Your task to perform on an android device: turn off javascript in the chrome app Image 0: 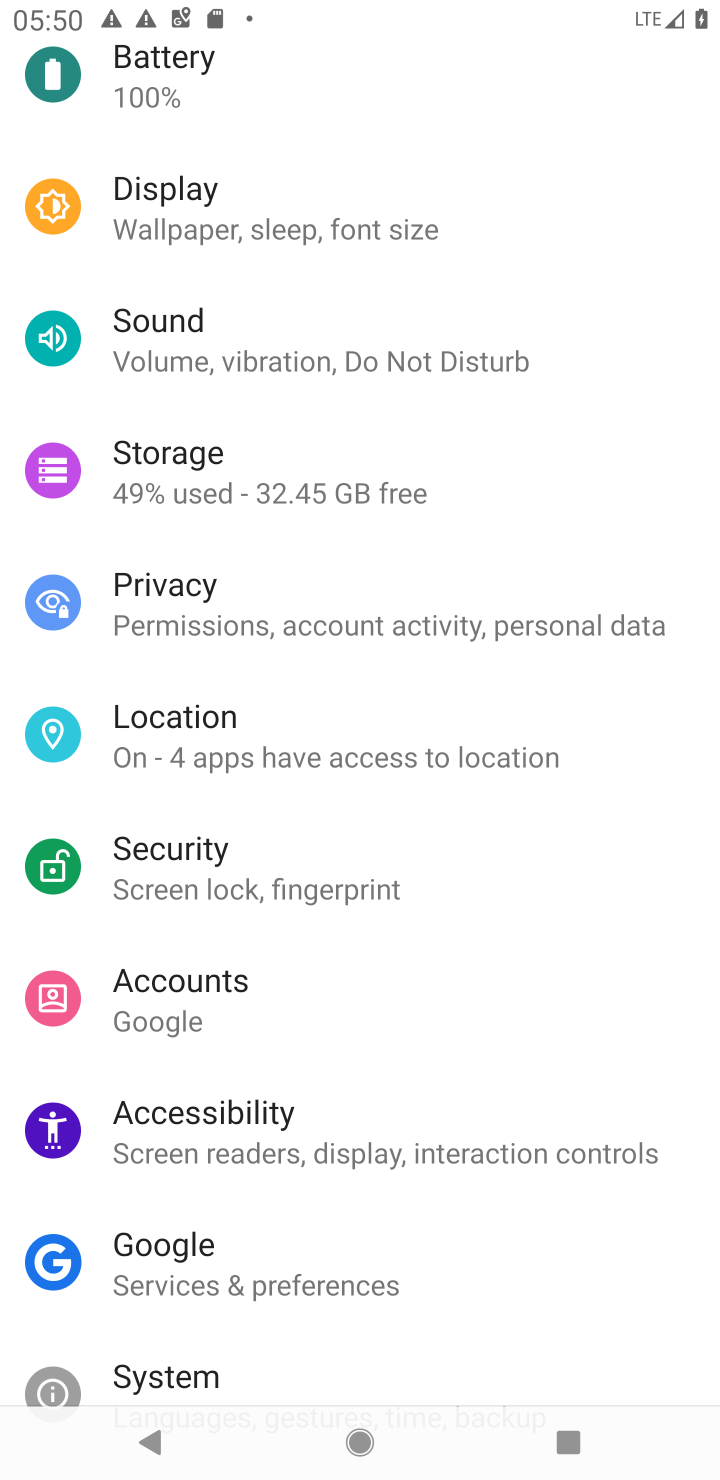
Step 0: press home button
Your task to perform on an android device: turn off javascript in the chrome app Image 1: 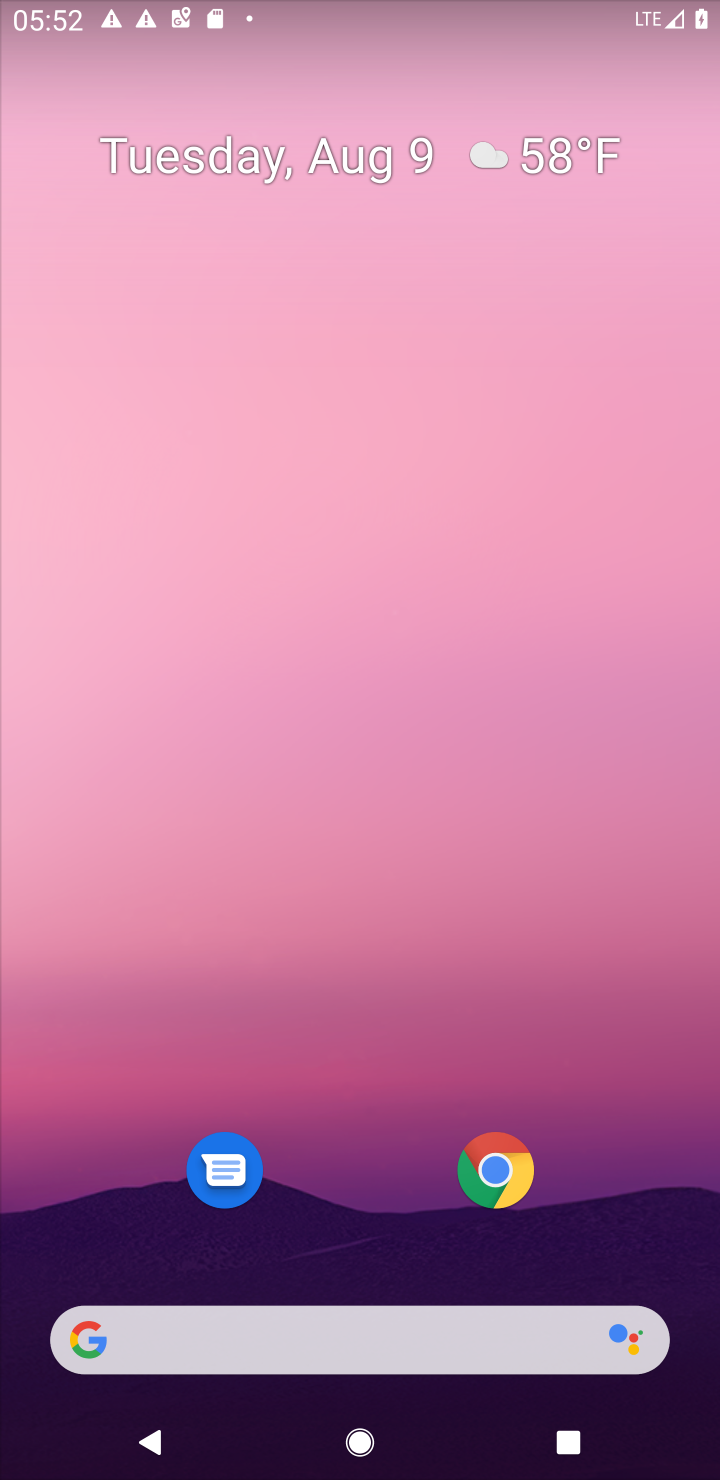
Step 1: click (490, 1172)
Your task to perform on an android device: turn off javascript in the chrome app Image 2: 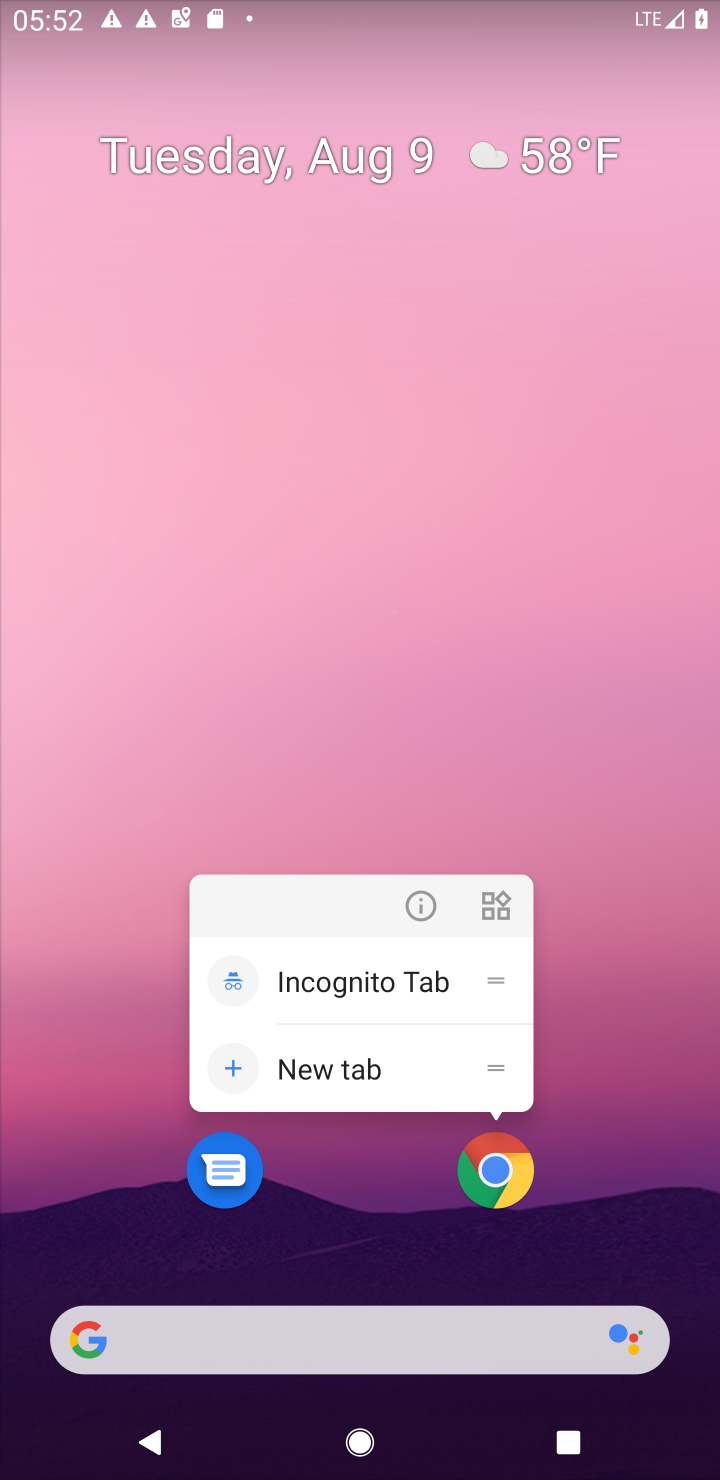
Step 2: click (506, 1193)
Your task to perform on an android device: turn off javascript in the chrome app Image 3: 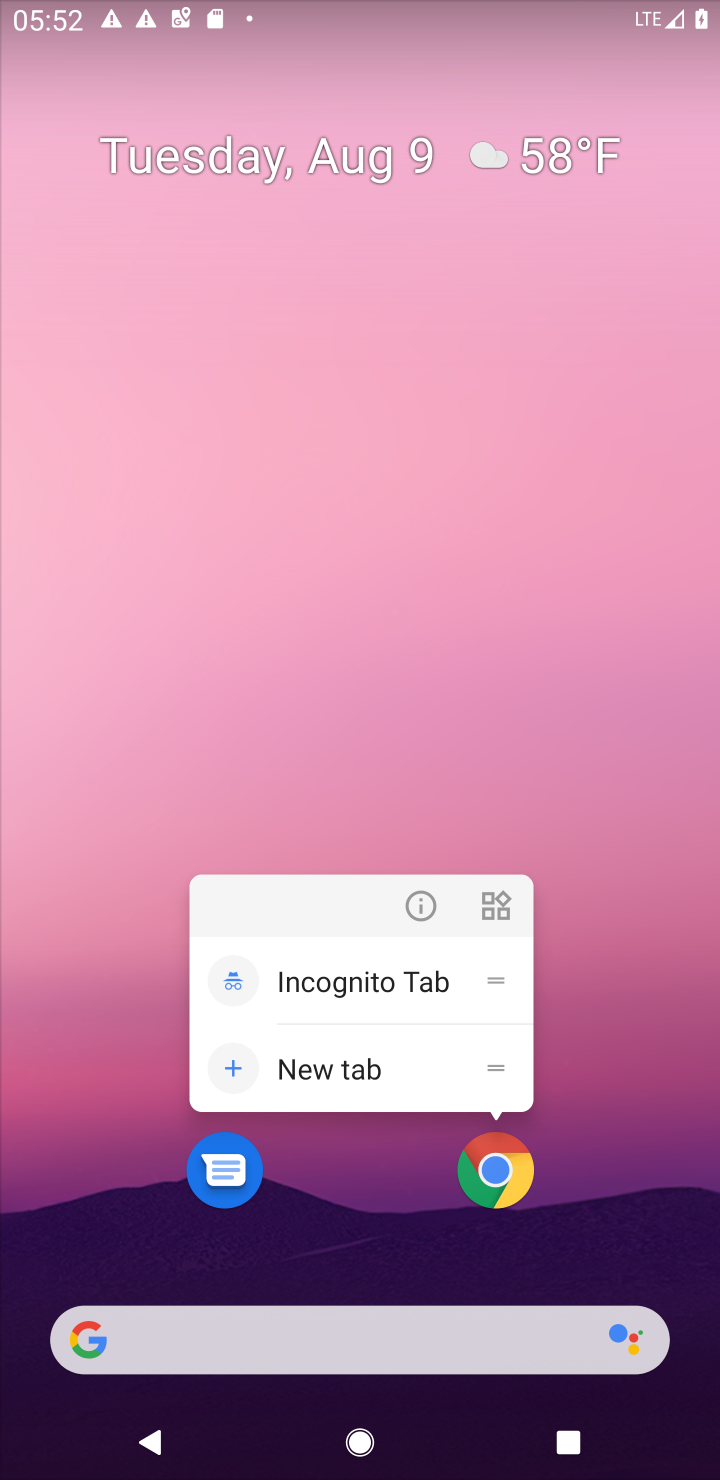
Step 3: click (506, 1193)
Your task to perform on an android device: turn off javascript in the chrome app Image 4: 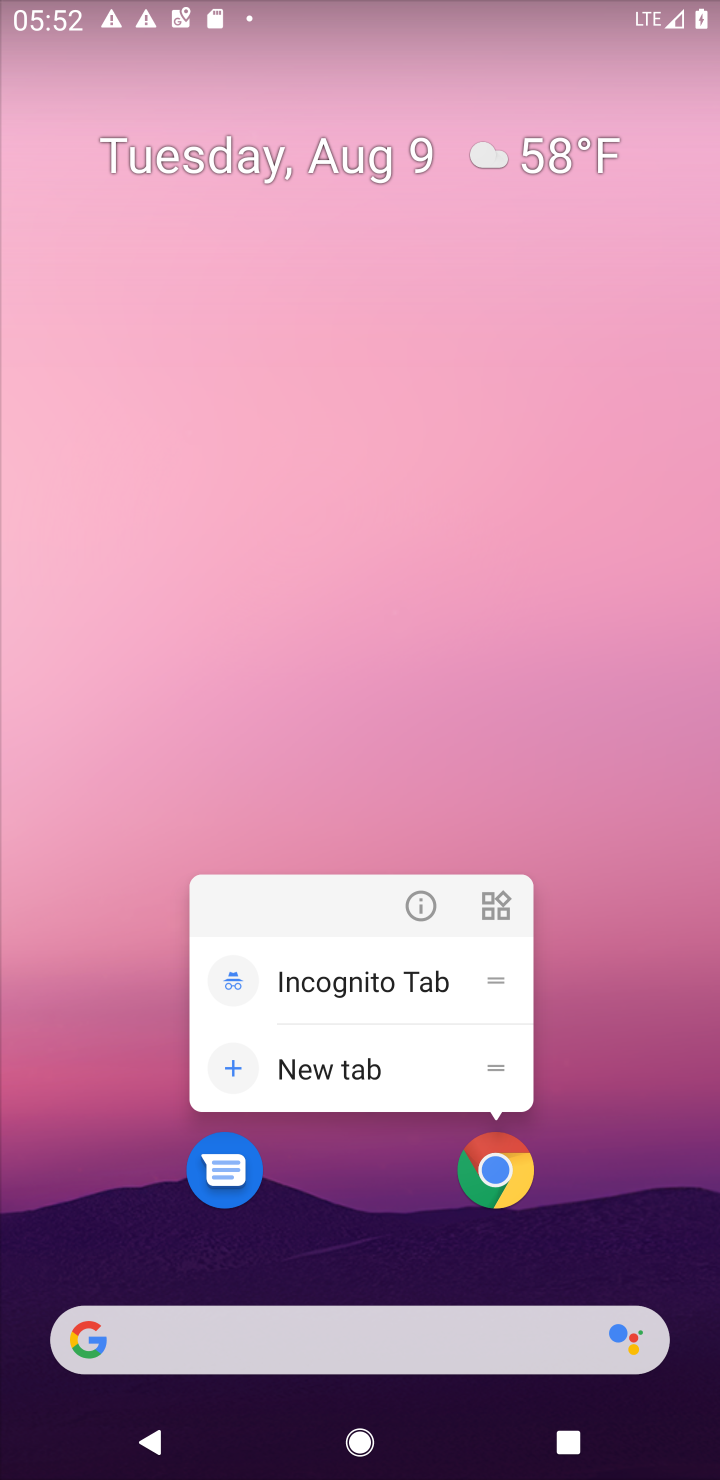
Step 4: click (502, 1173)
Your task to perform on an android device: turn off javascript in the chrome app Image 5: 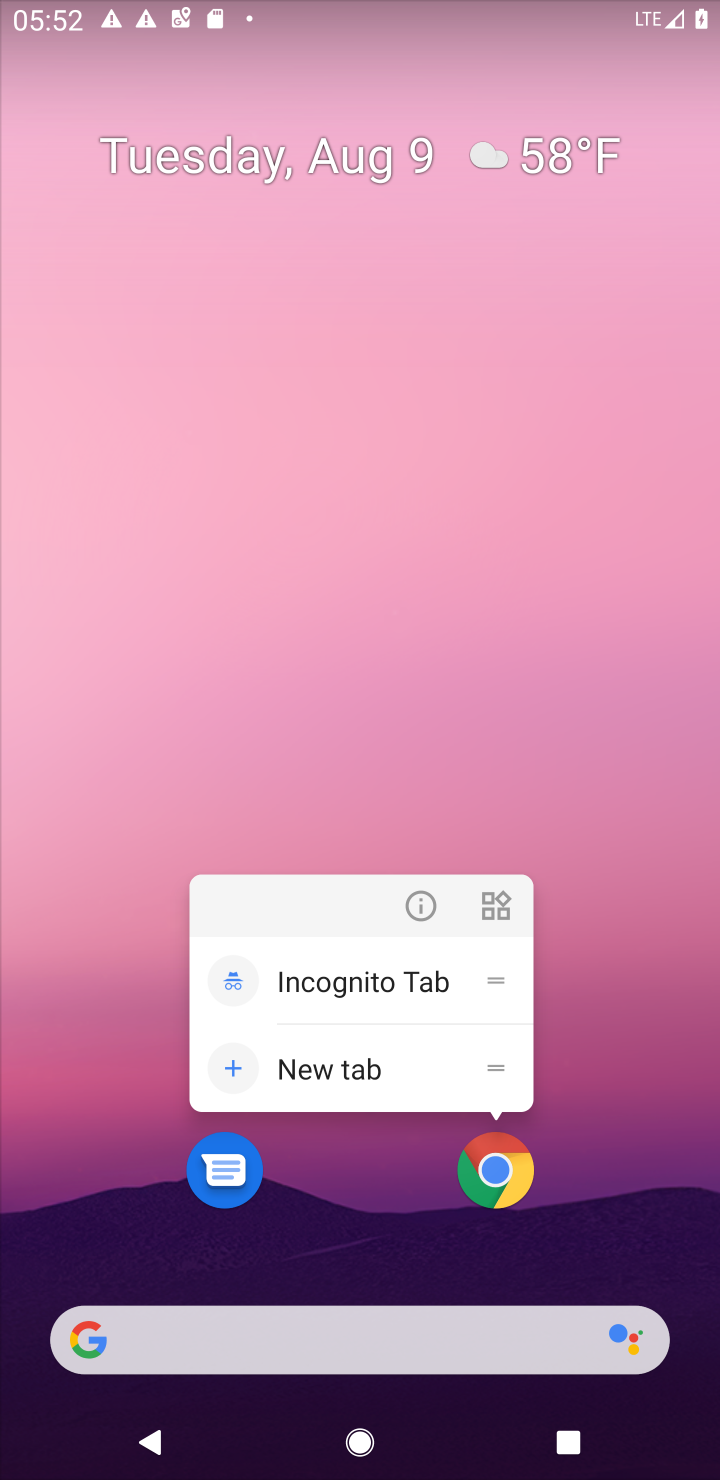
Step 5: click (486, 1170)
Your task to perform on an android device: turn off javascript in the chrome app Image 6: 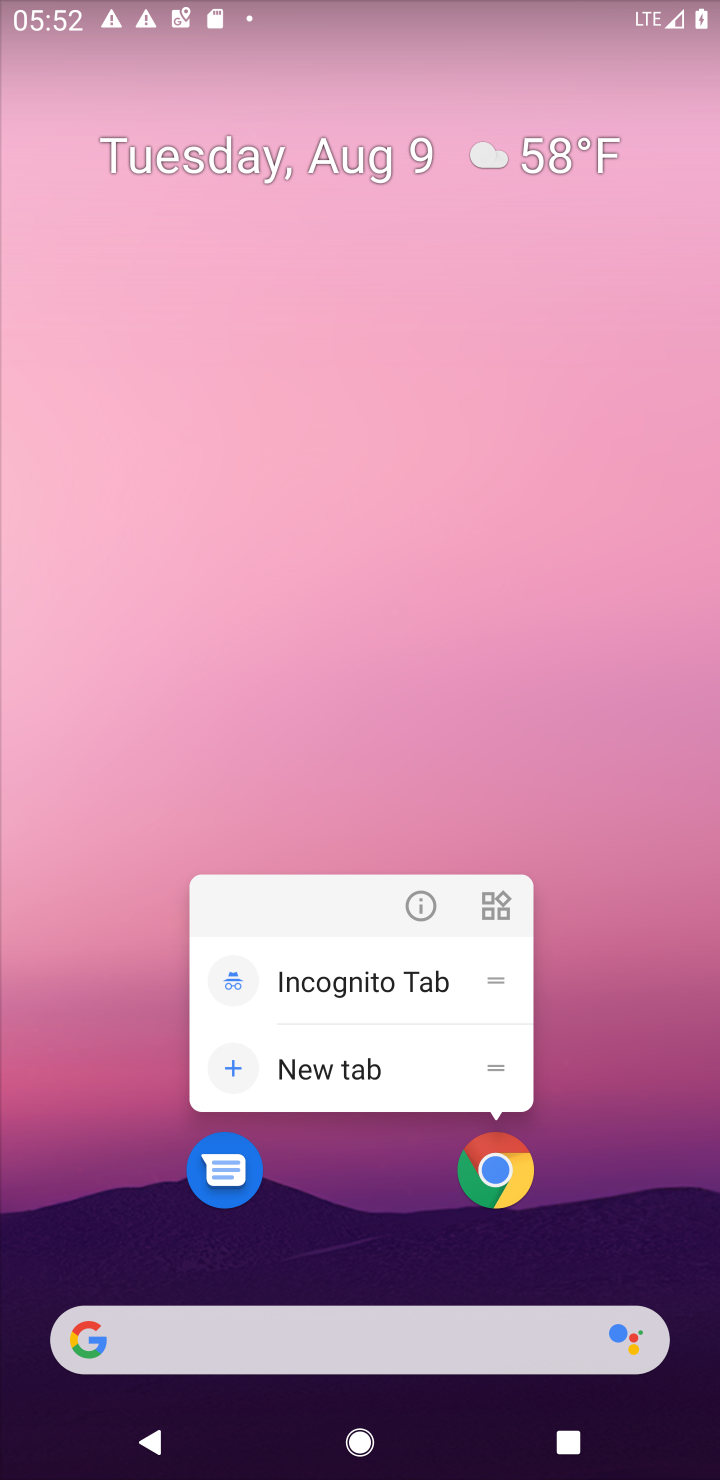
Step 6: click (472, 1170)
Your task to perform on an android device: turn off javascript in the chrome app Image 7: 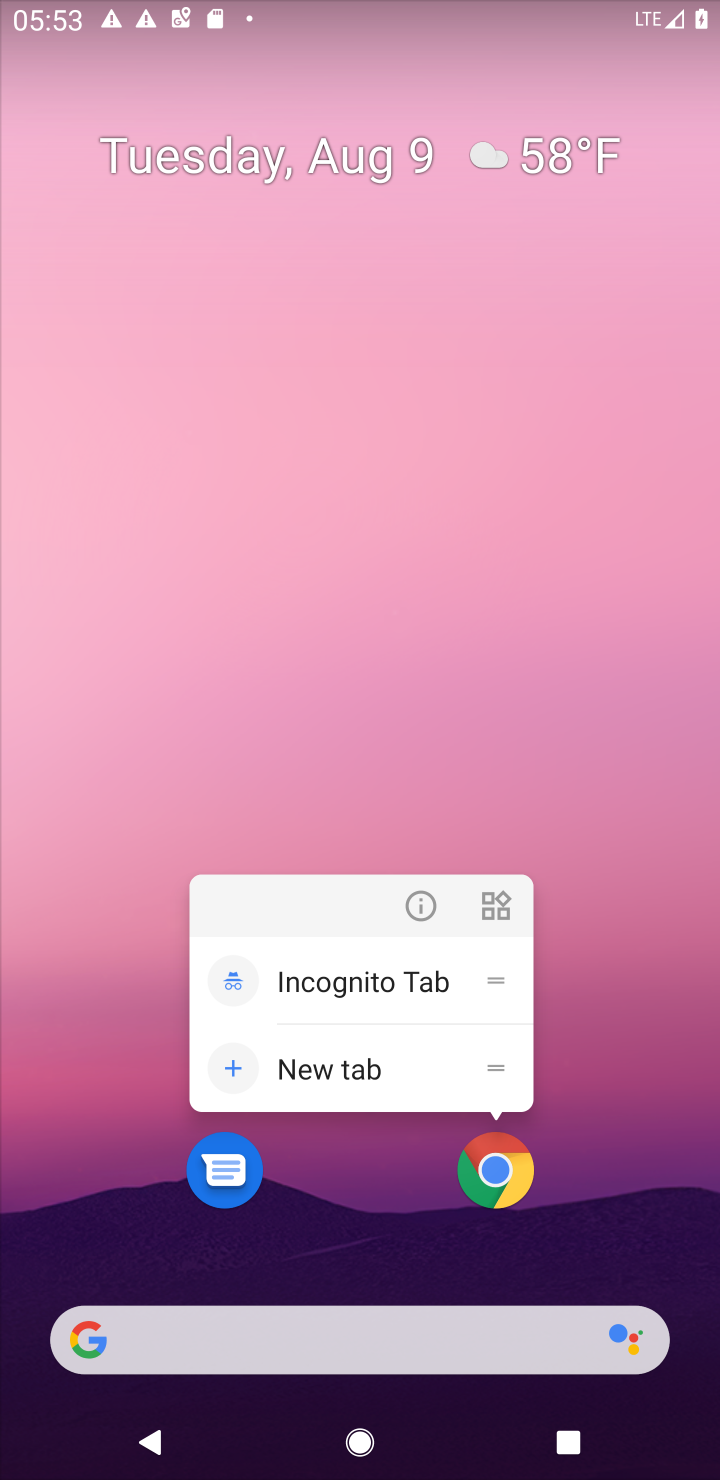
Step 7: click (485, 1180)
Your task to perform on an android device: turn off javascript in the chrome app Image 8: 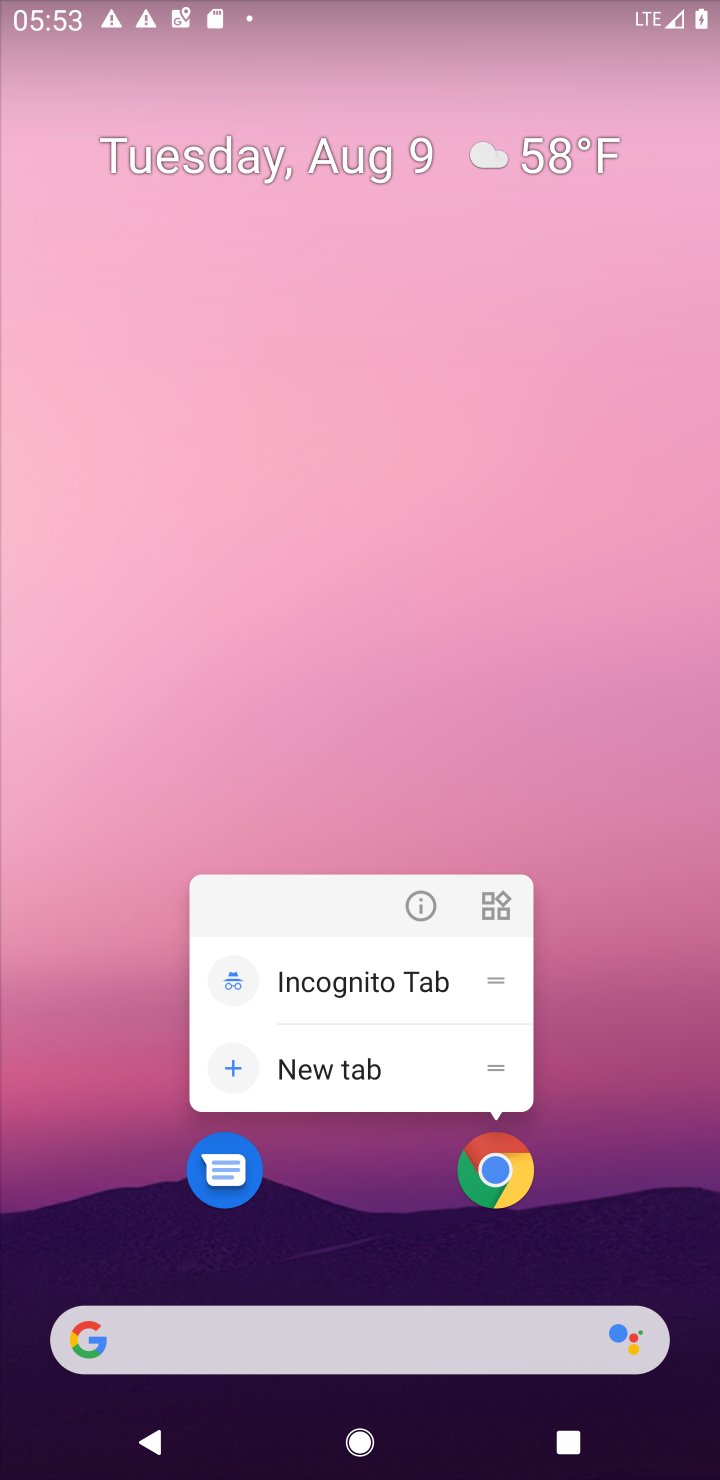
Step 8: click (485, 1180)
Your task to perform on an android device: turn off javascript in the chrome app Image 9: 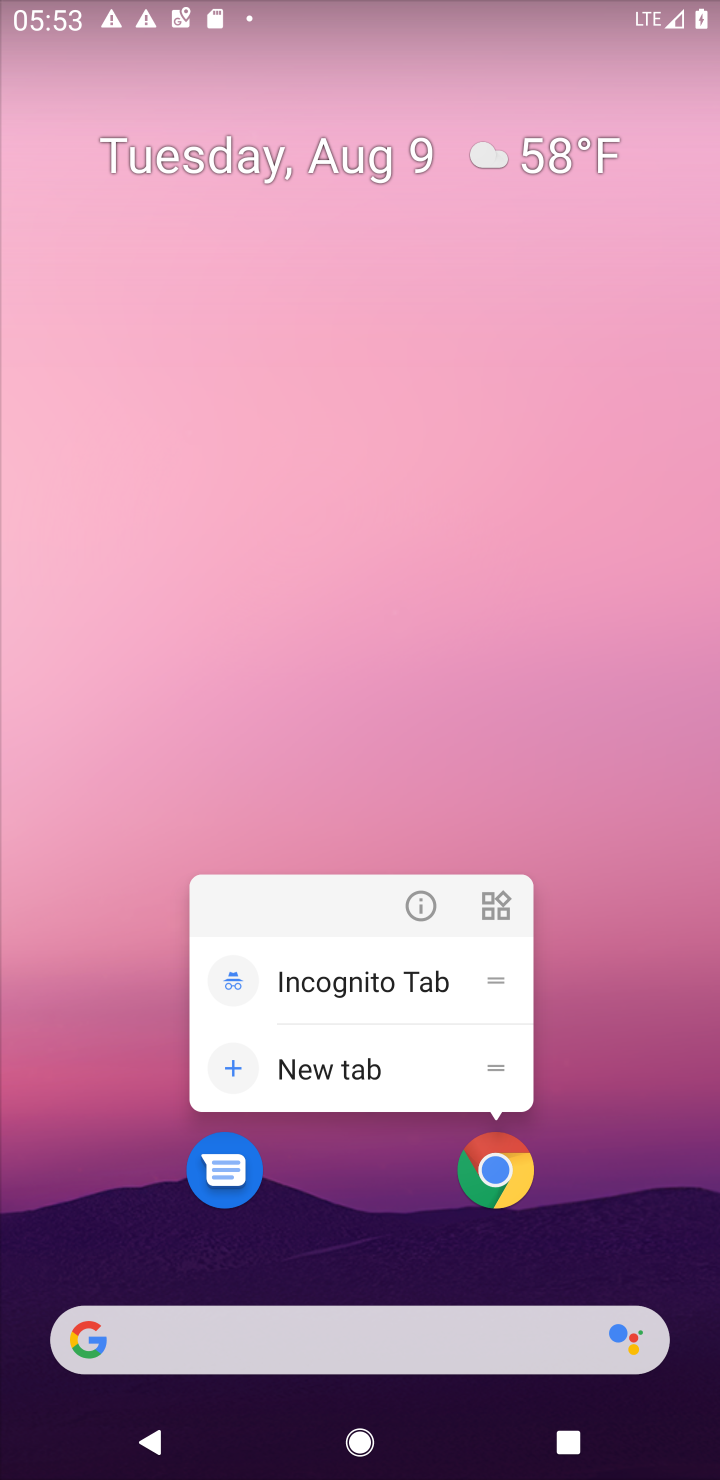
Step 9: click (506, 1173)
Your task to perform on an android device: turn off javascript in the chrome app Image 10: 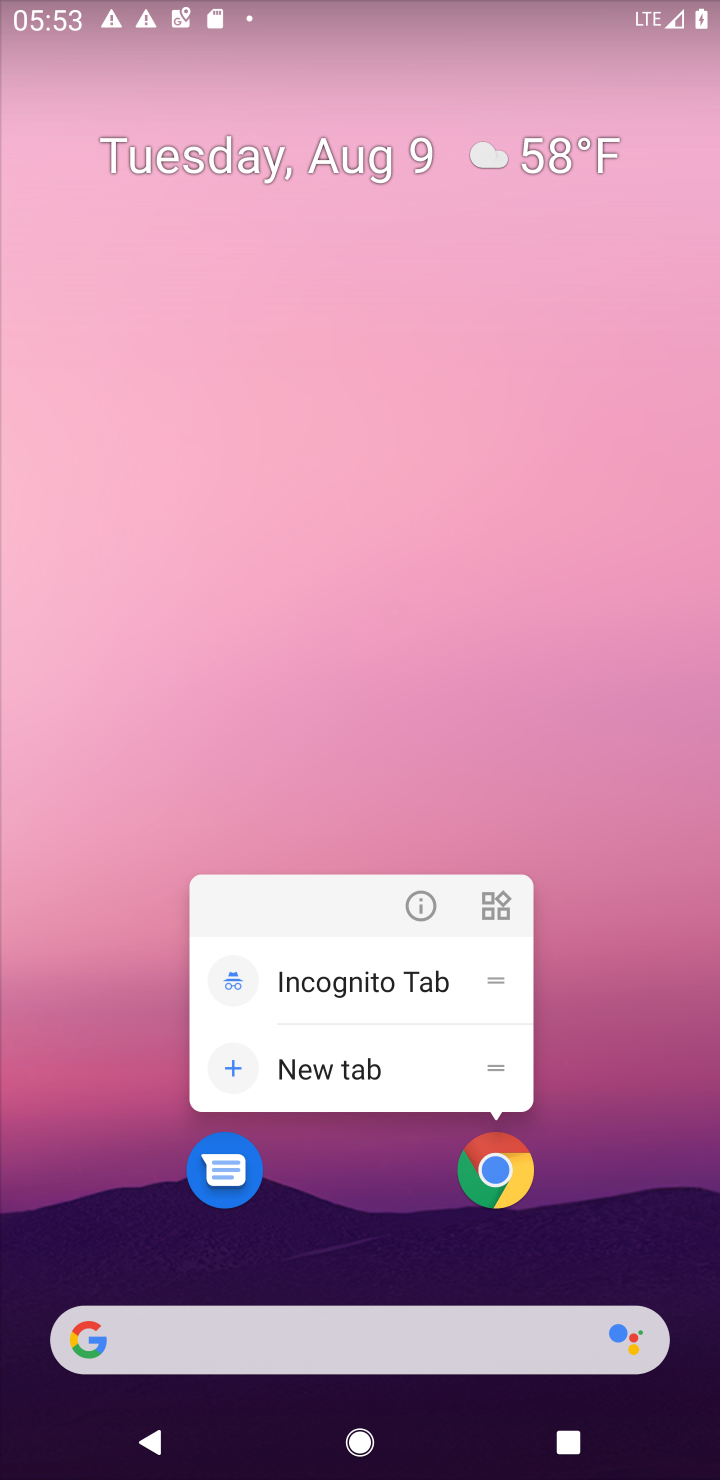
Step 10: click (506, 1173)
Your task to perform on an android device: turn off javascript in the chrome app Image 11: 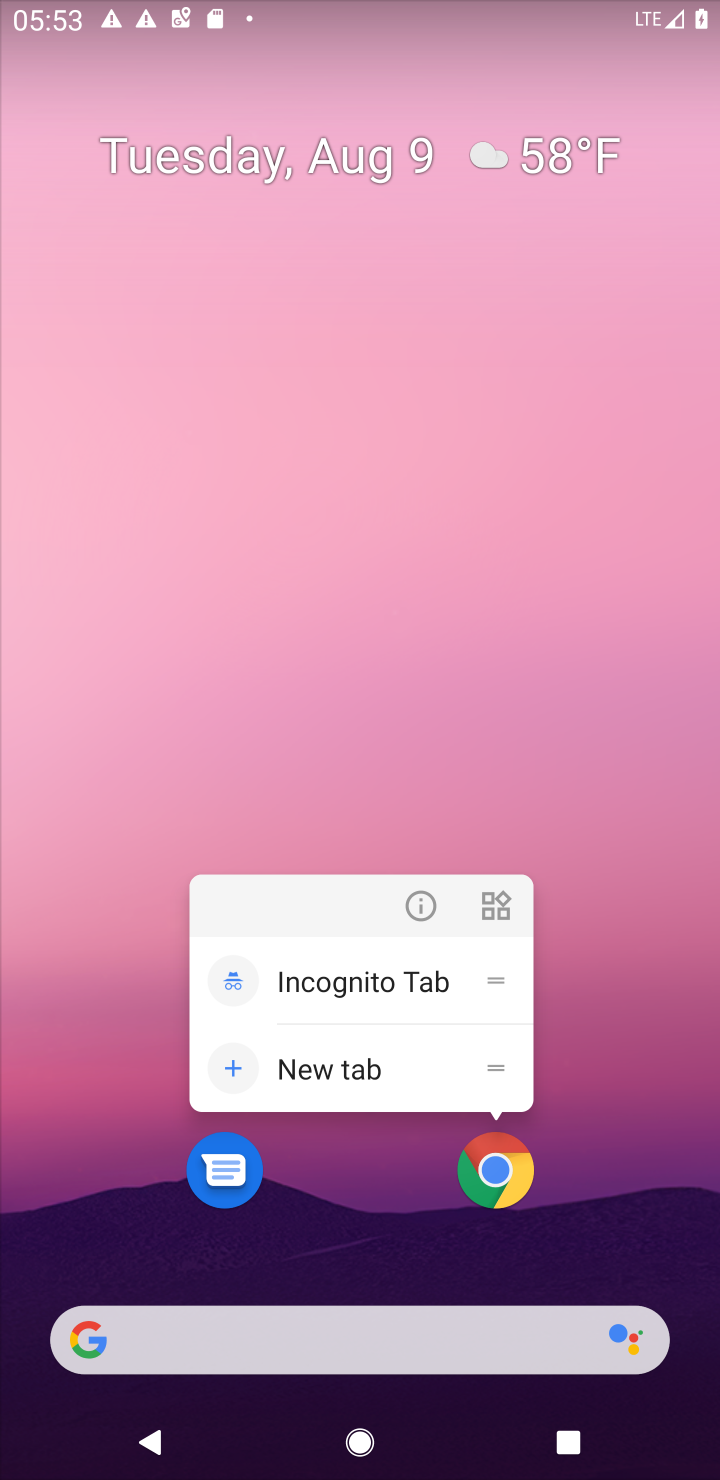
Step 11: click (481, 1184)
Your task to perform on an android device: turn off javascript in the chrome app Image 12: 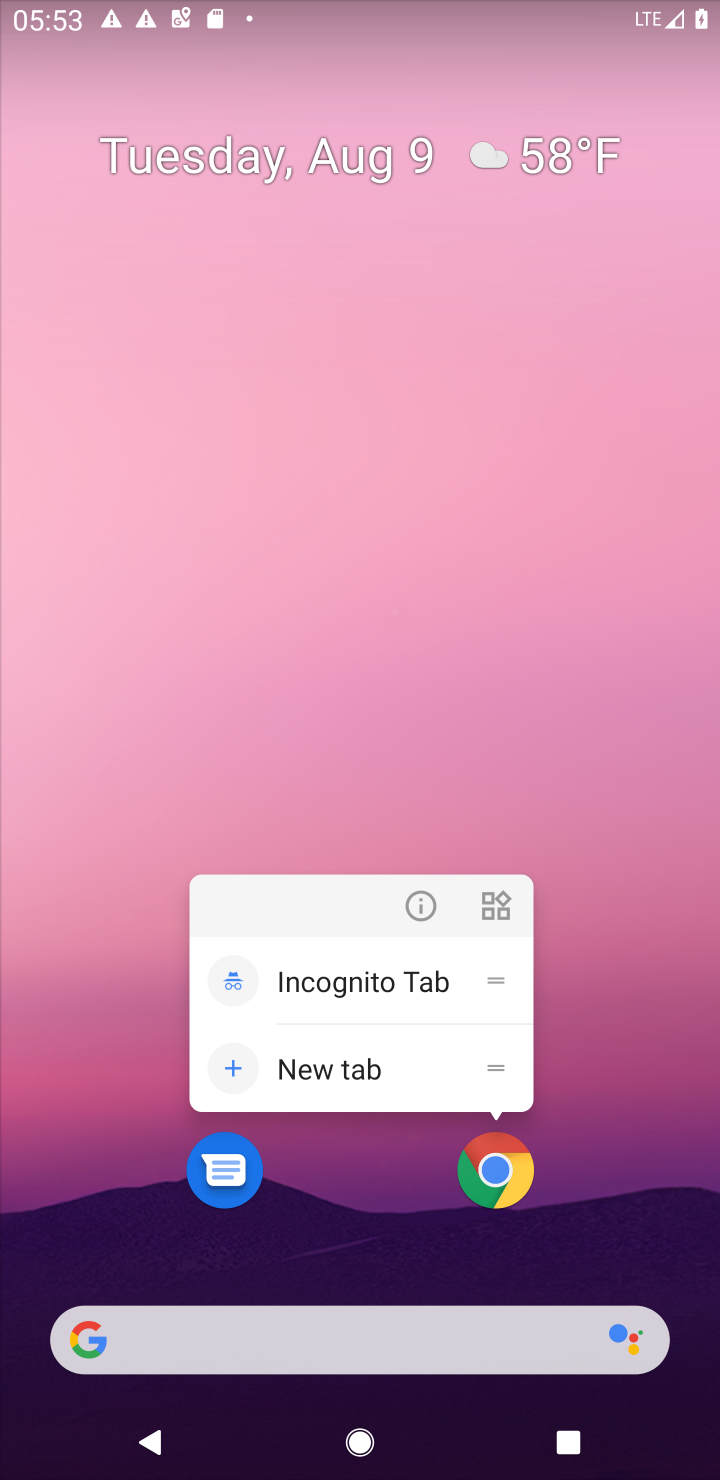
Step 12: click (498, 1171)
Your task to perform on an android device: turn off javascript in the chrome app Image 13: 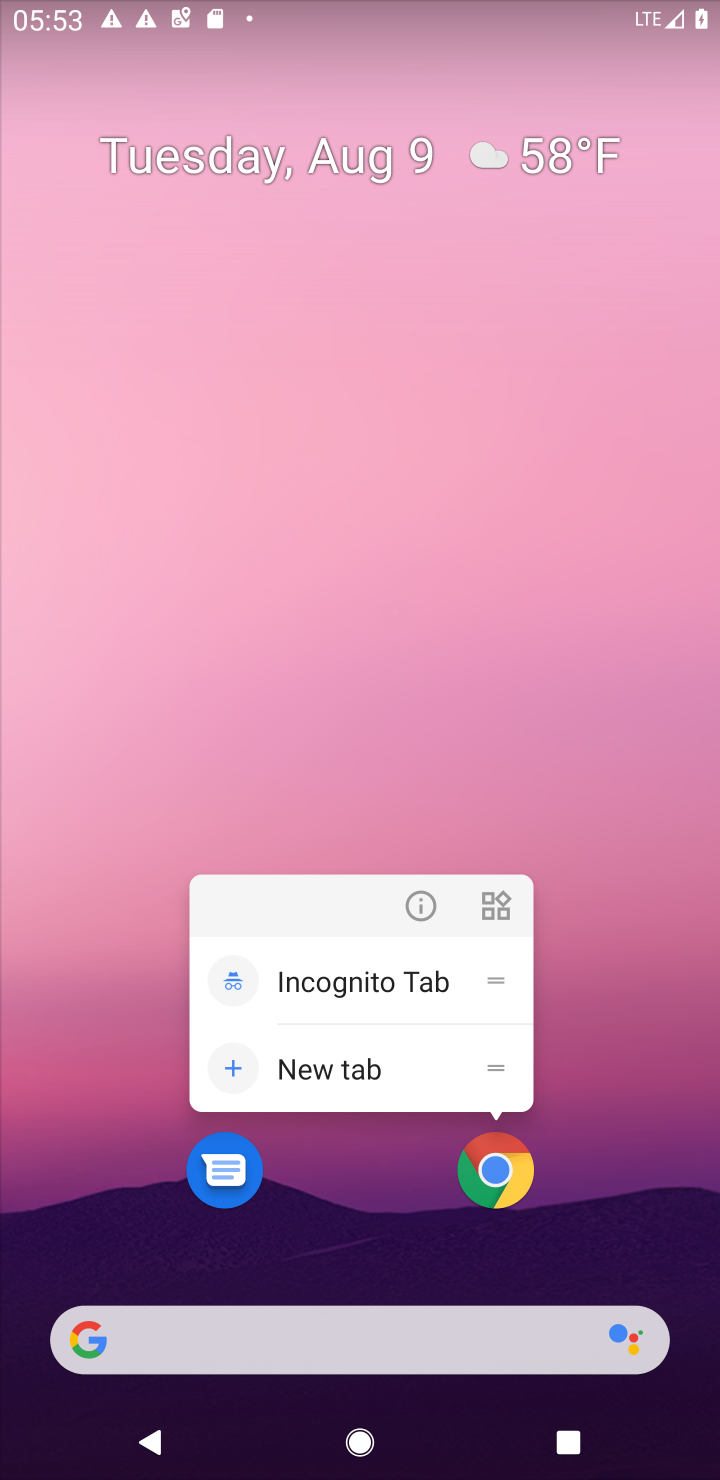
Step 13: click (498, 1171)
Your task to perform on an android device: turn off javascript in the chrome app Image 14: 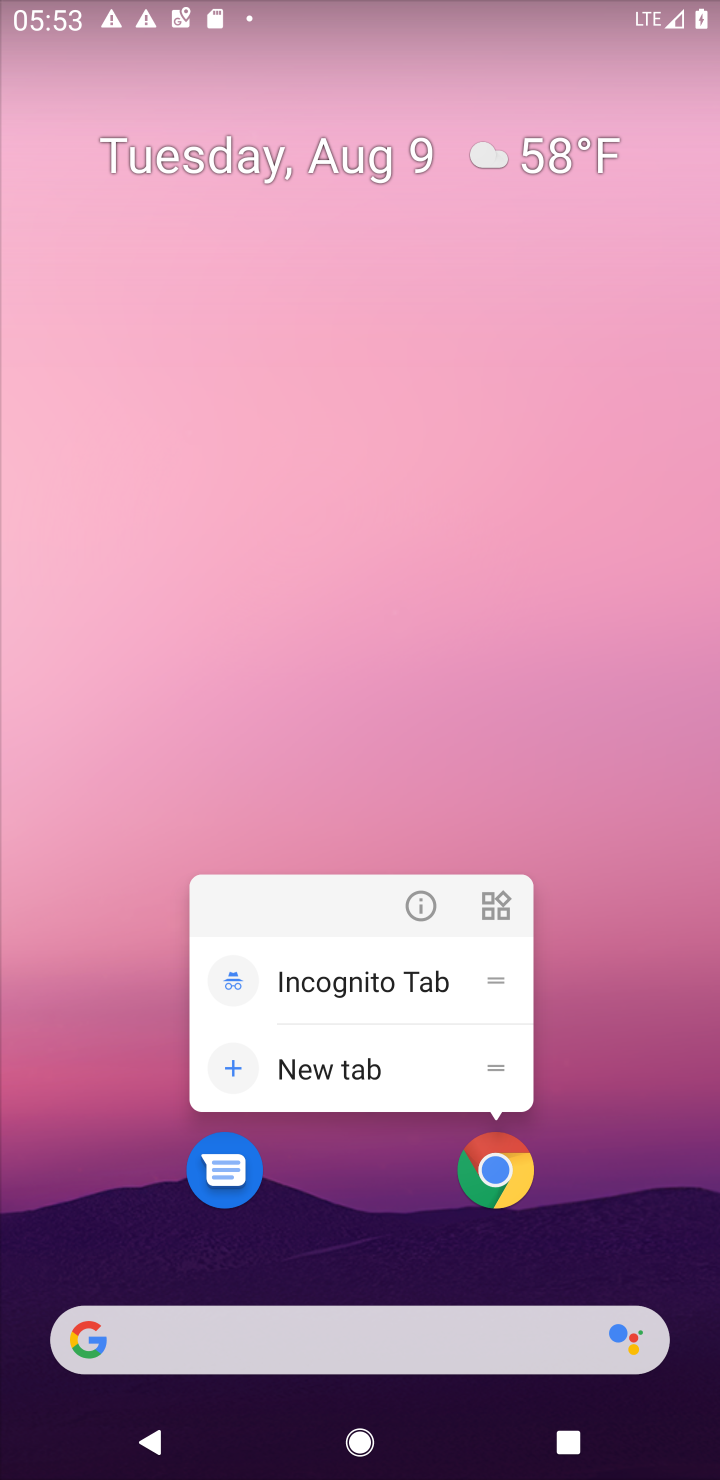
Step 14: click (498, 1171)
Your task to perform on an android device: turn off javascript in the chrome app Image 15: 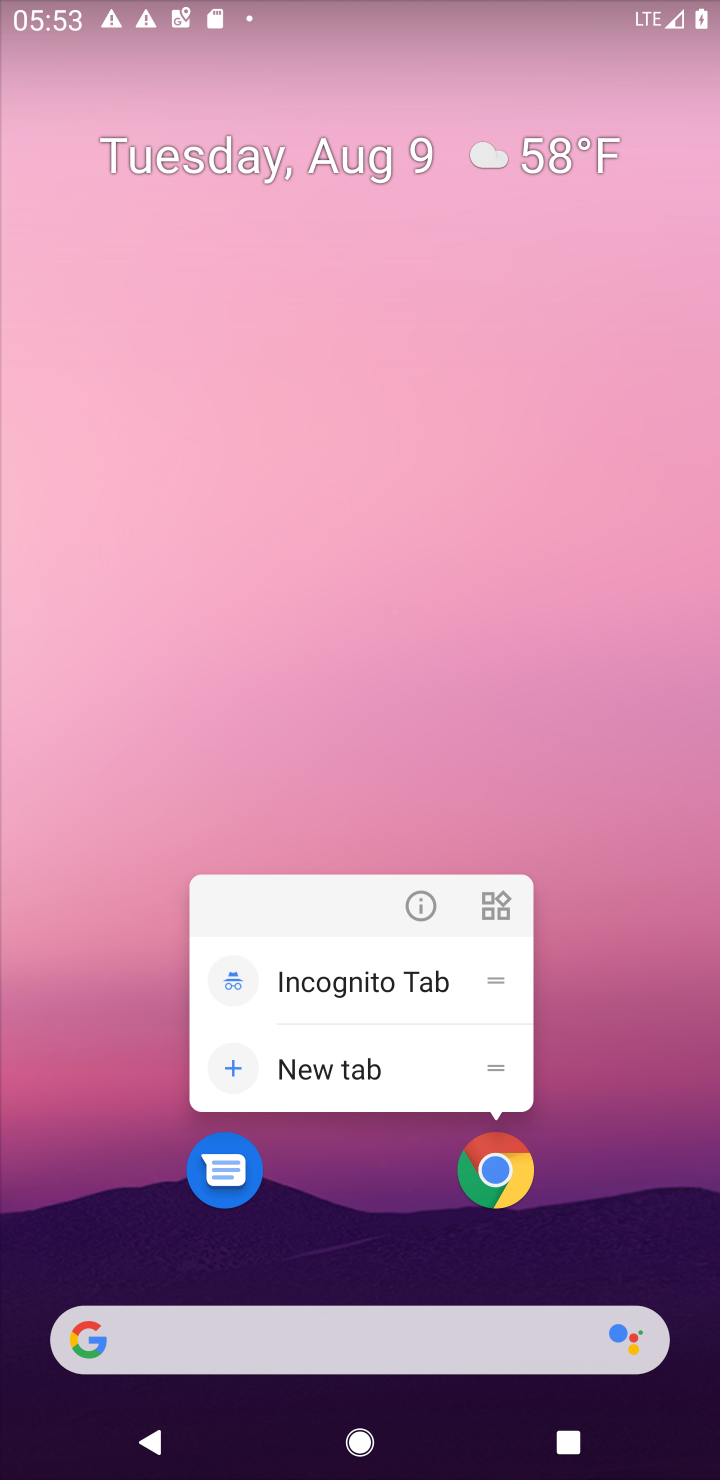
Step 15: click (511, 1206)
Your task to perform on an android device: turn off javascript in the chrome app Image 16: 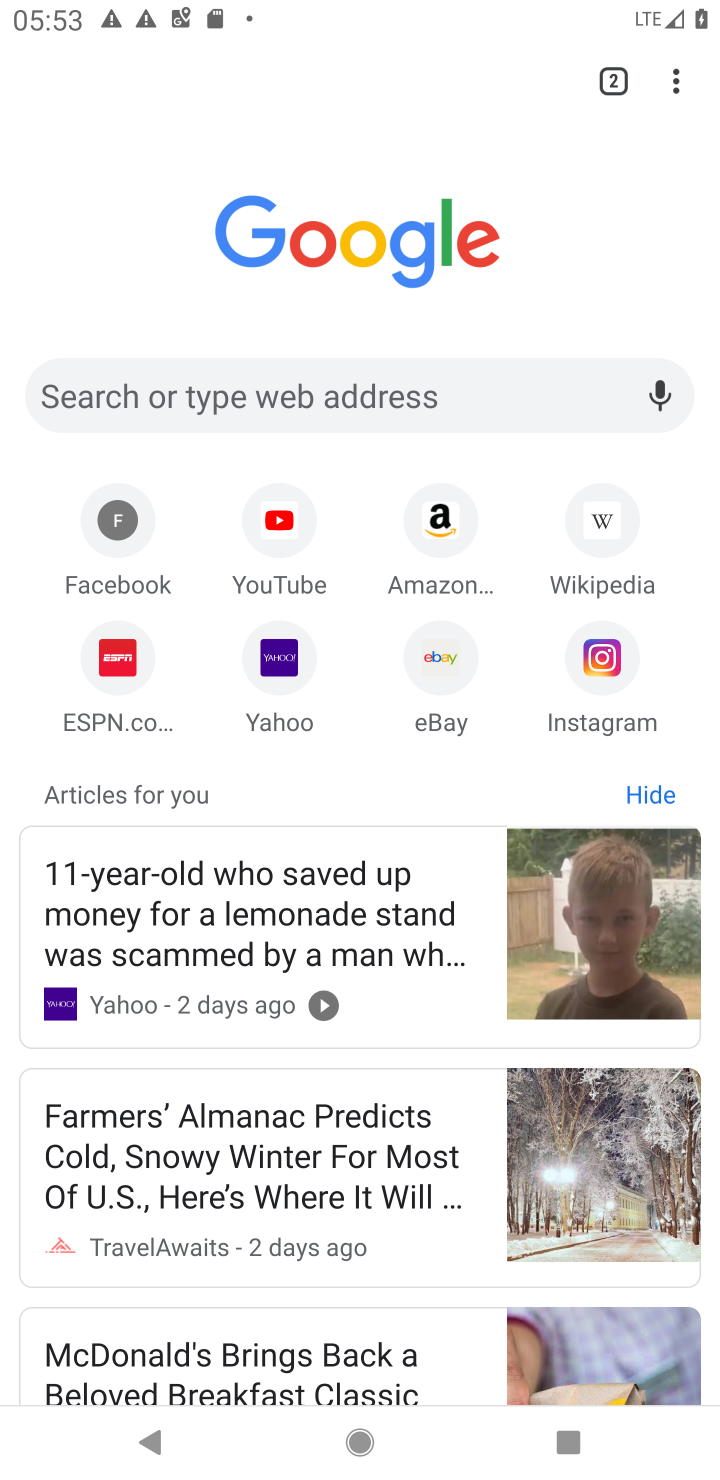
Step 16: drag from (668, 73) to (396, 688)
Your task to perform on an android device: turn off javascript in the chrome app Image 17: 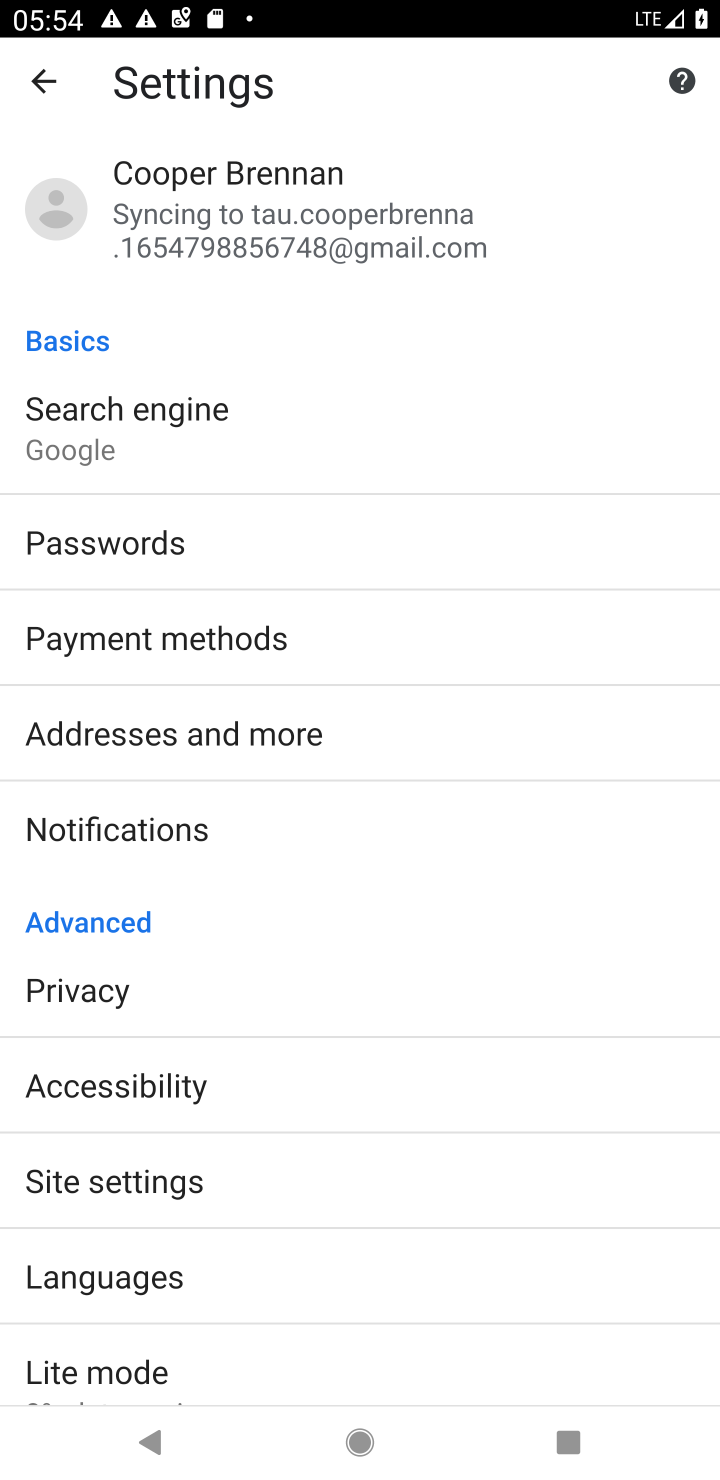
Step 17: click (114, 1183)
Your task to perform on an android device: turn off javascript in the chrome app Image 18: 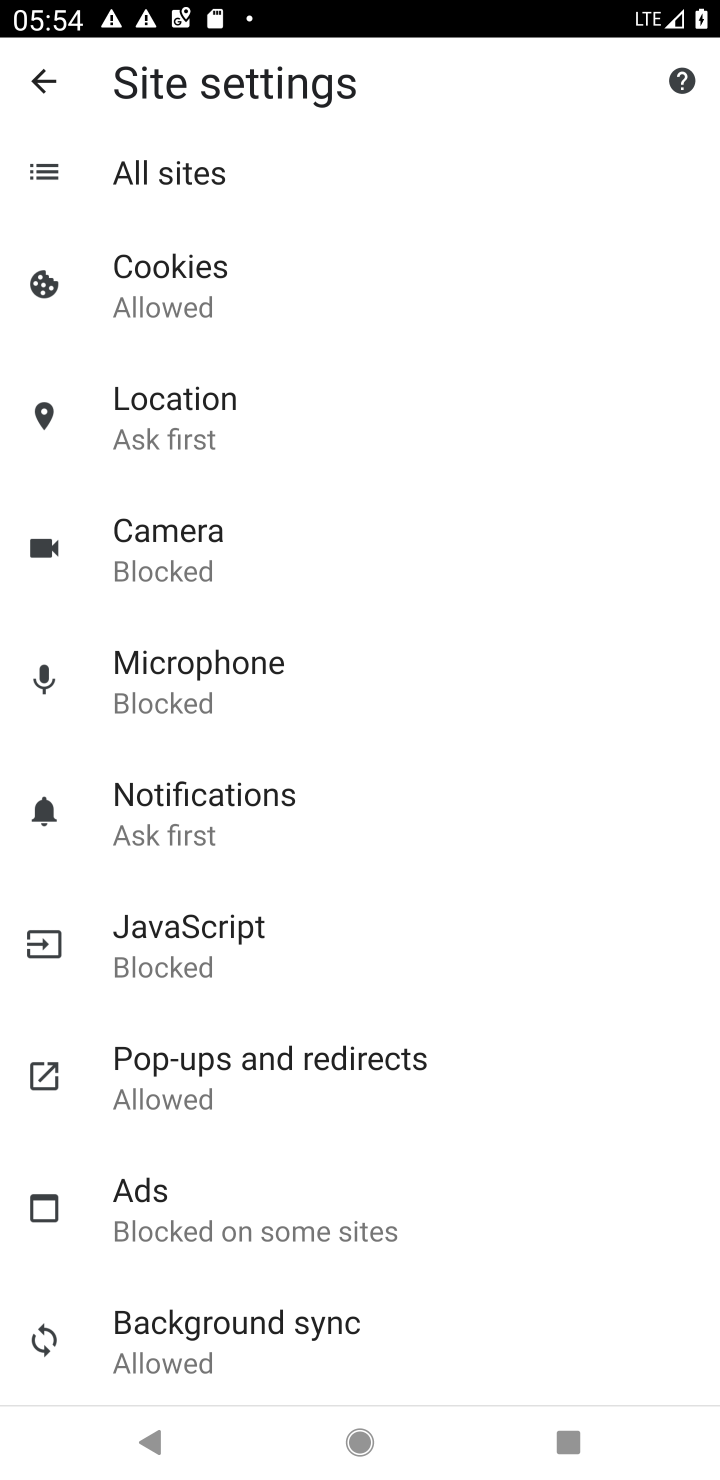
Step 18: click (188, 949)
Your task to perform on an android device: turn off javascript in the chrome app Image 19: 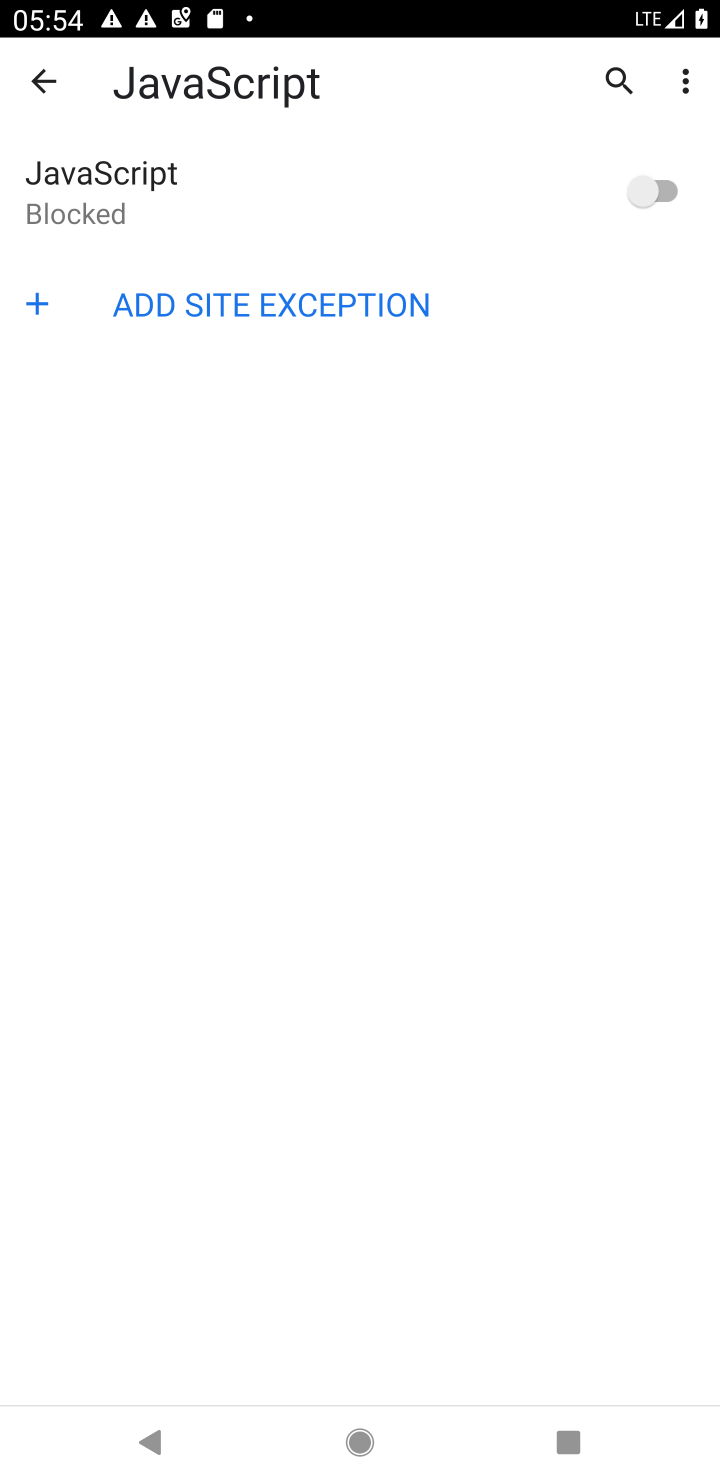
Step 19: task complete